Your task to perform on an android device: toggle data saver in the chrome app Image 0: 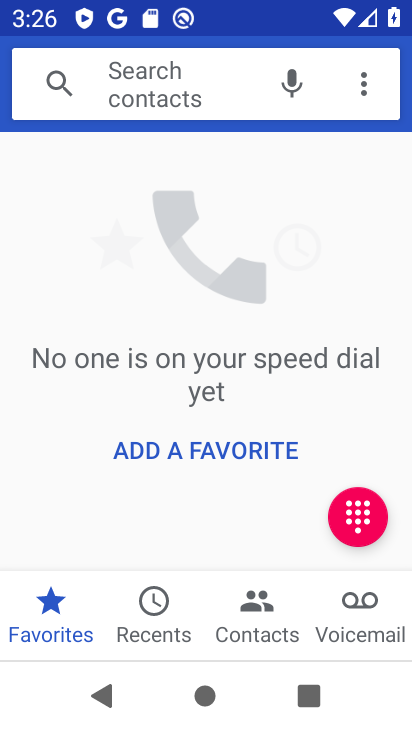
Step 0: press back button
Your task to perform on an android device: toggle data saver in the chrome app Image 1: 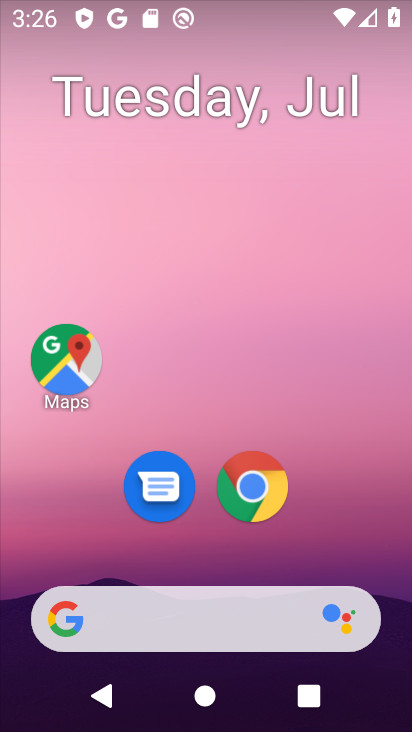
Step 1: click (259, 476)
Your task to perform on an android device: toggle data saver in the chrome app Image 2: 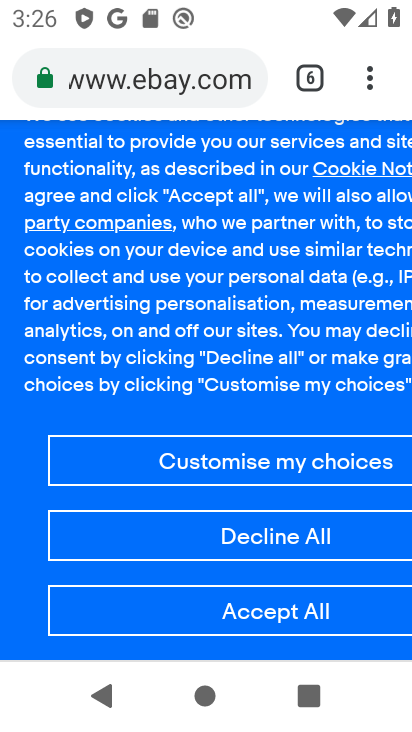
Step 2: drag from (368, 78) to (99, 548)
Your task to perform on an android device: toggle data saver in the chrome app Image 3: 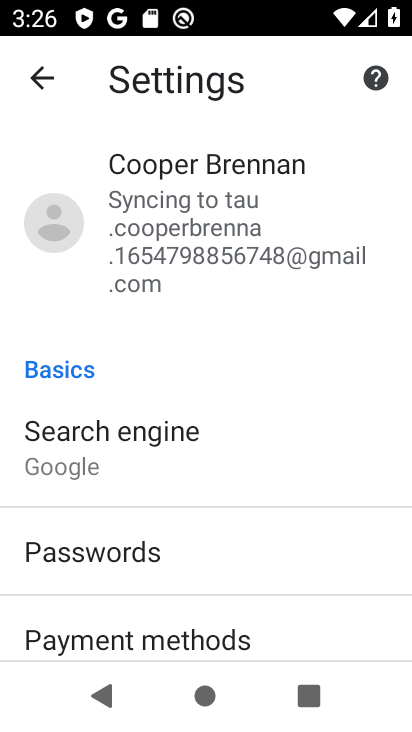
Step 3: drag from (99, 648) to (184, 108)
Your task to perform on an android device: toggle data saver in the chrome app Image 4: 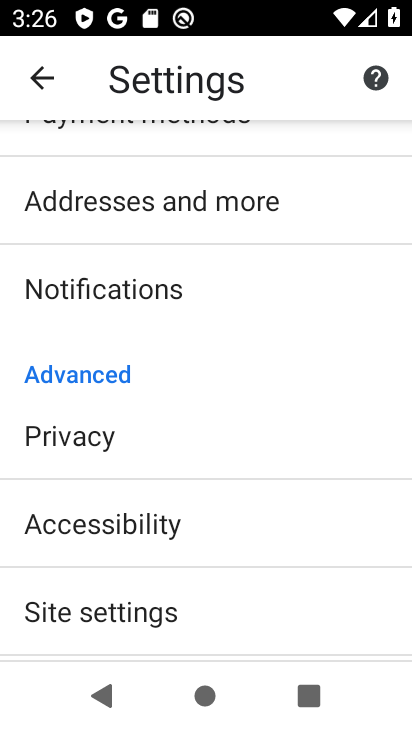
Step 4: drag from (84, 570) to (167, 187)
Your task to perform on an android device: toggle data saver in the chrome app Image 5: 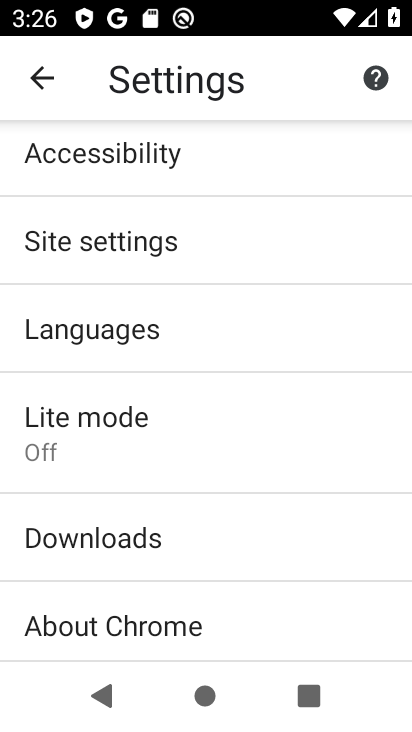
Step 5: click (87, 426)
Your task to perform on an android device: toggle data saver in the chrome app Image 6: 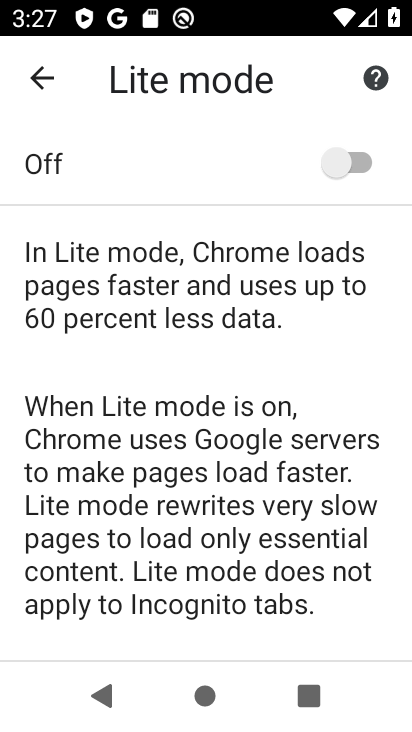
Step 6: click (325, 167)
Your task to perform on an android device: toggle data saver in the chrome app Image 7: 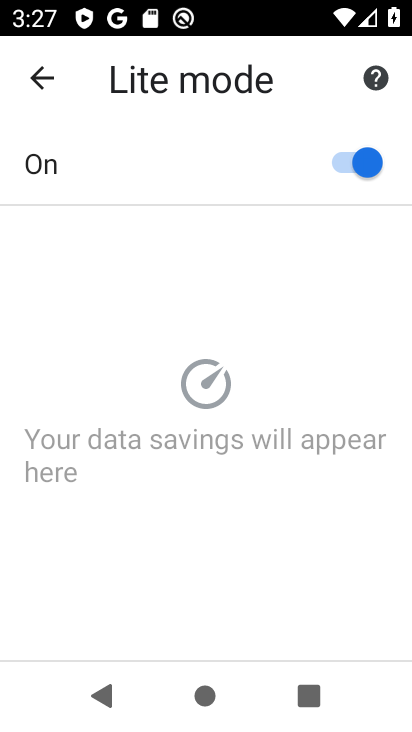
Step 7: task complete